Your task to perform on an android device: Open wifi settings Image 0: 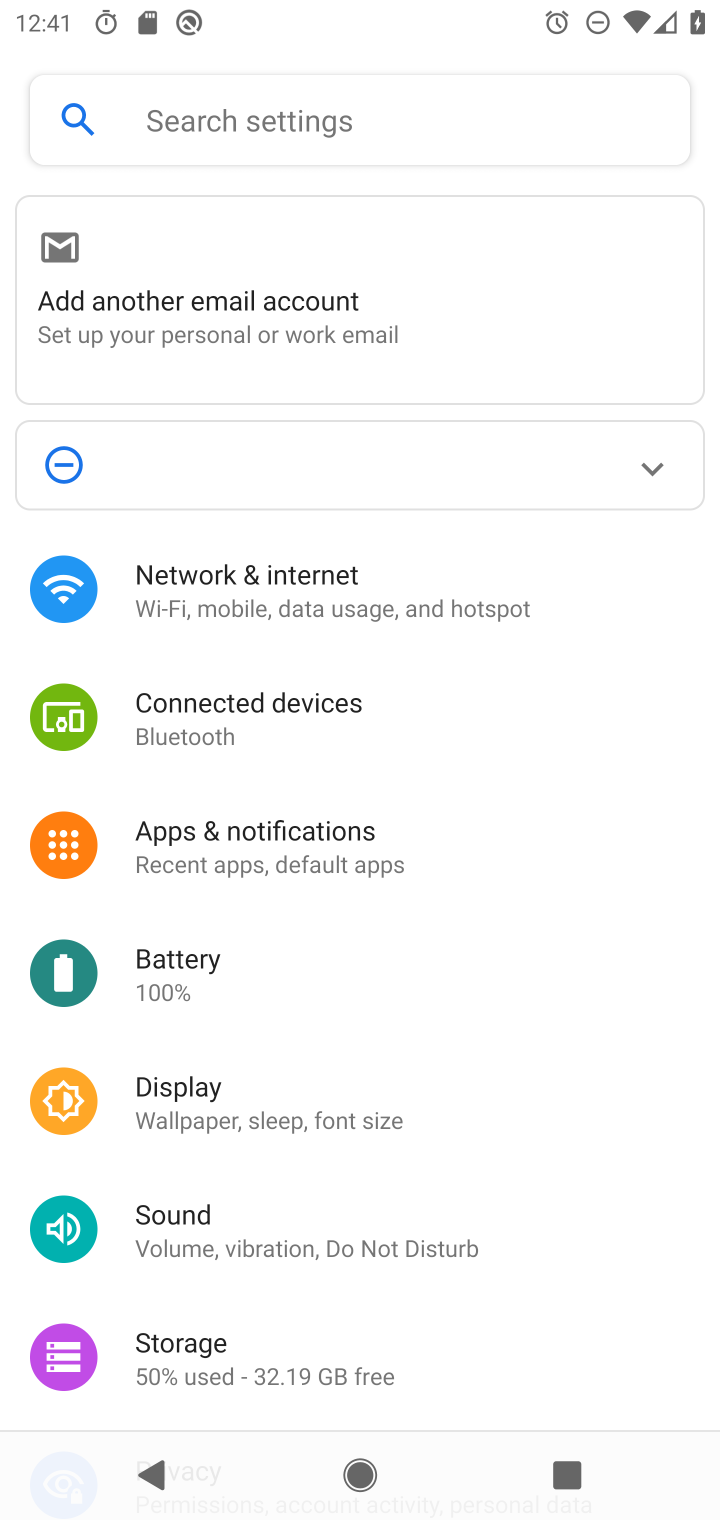
Step 0: press home button
Your task to perform on an android device: Open wifi settings Image 1: 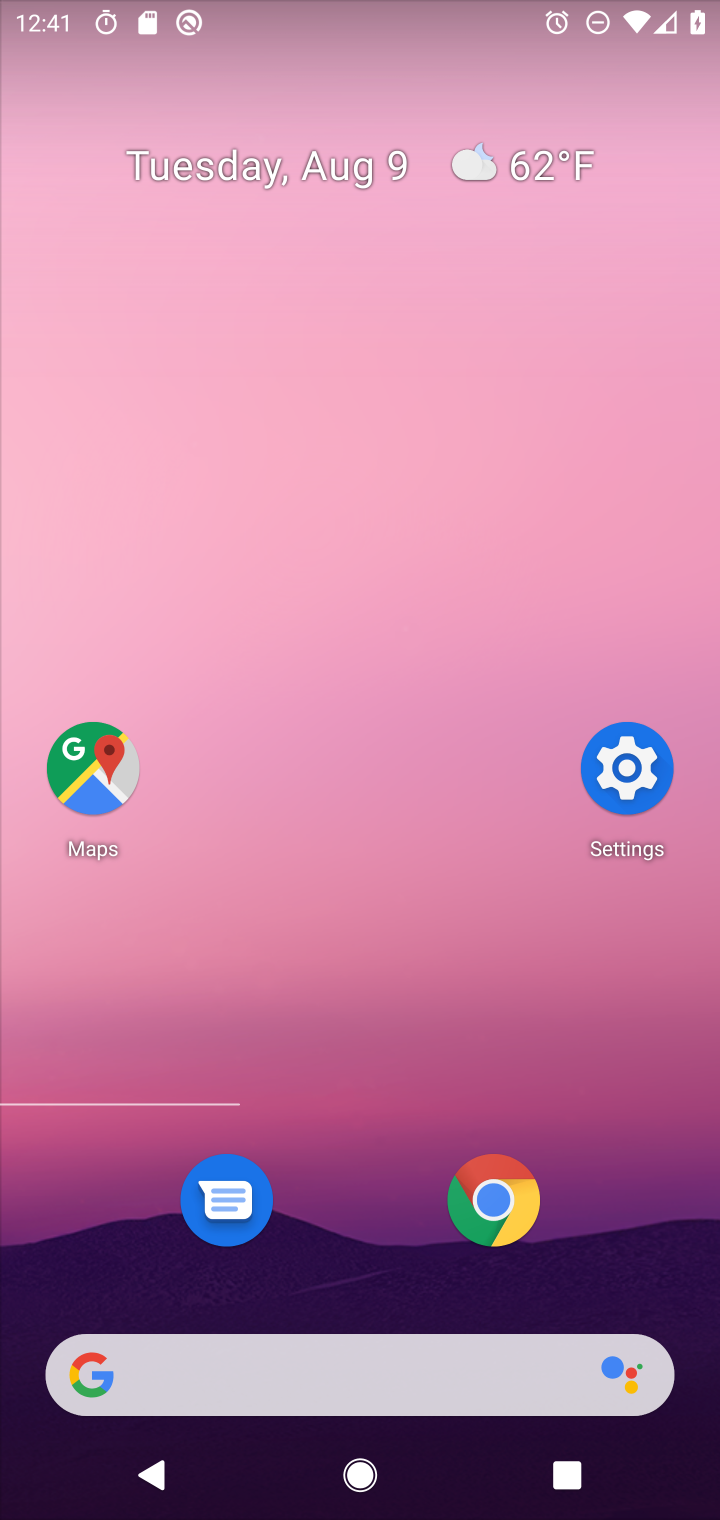
Step 1: click (639, 748)
Your task to perform on an android device: Open wifi settings Image 2: 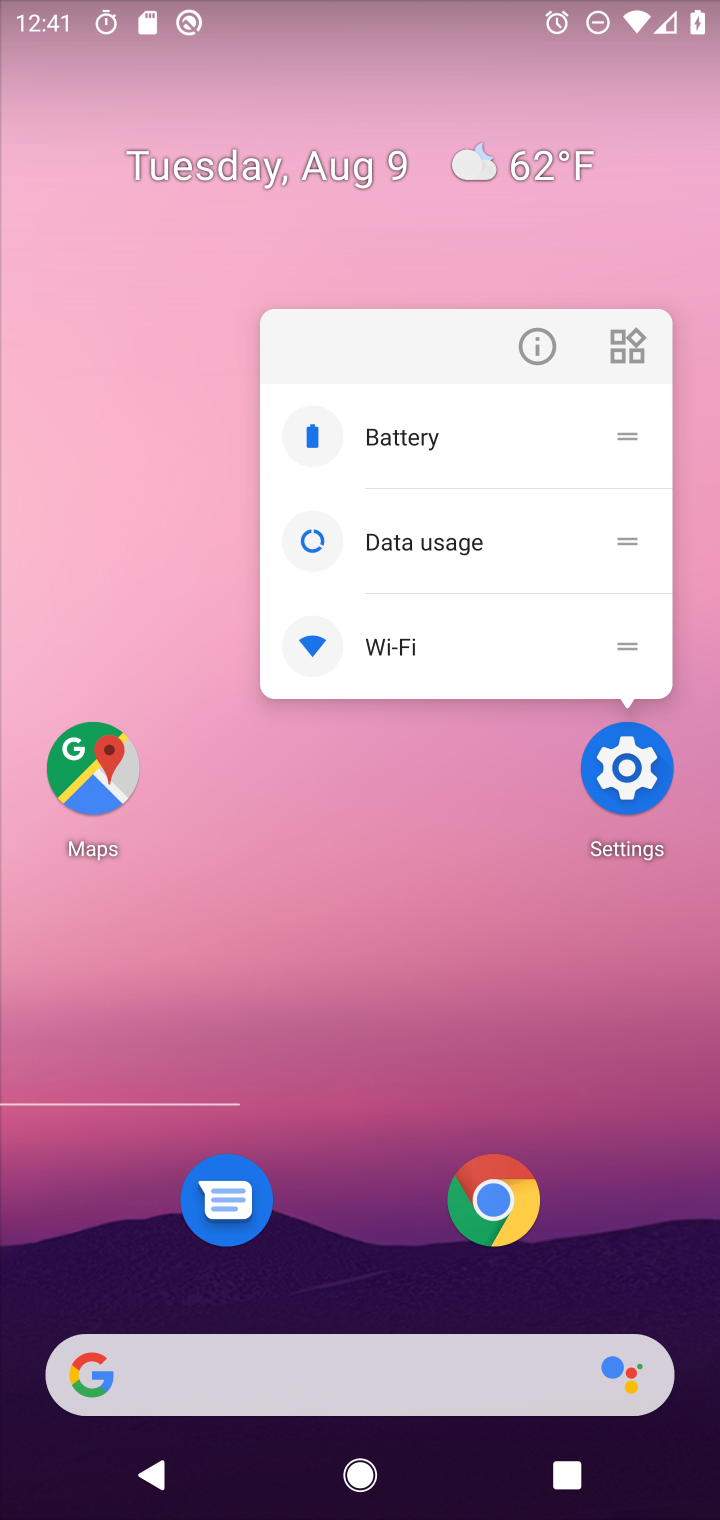
Step 2: click (639, 744)
Your task to perform on an android device: Open wifi settings Image 3: 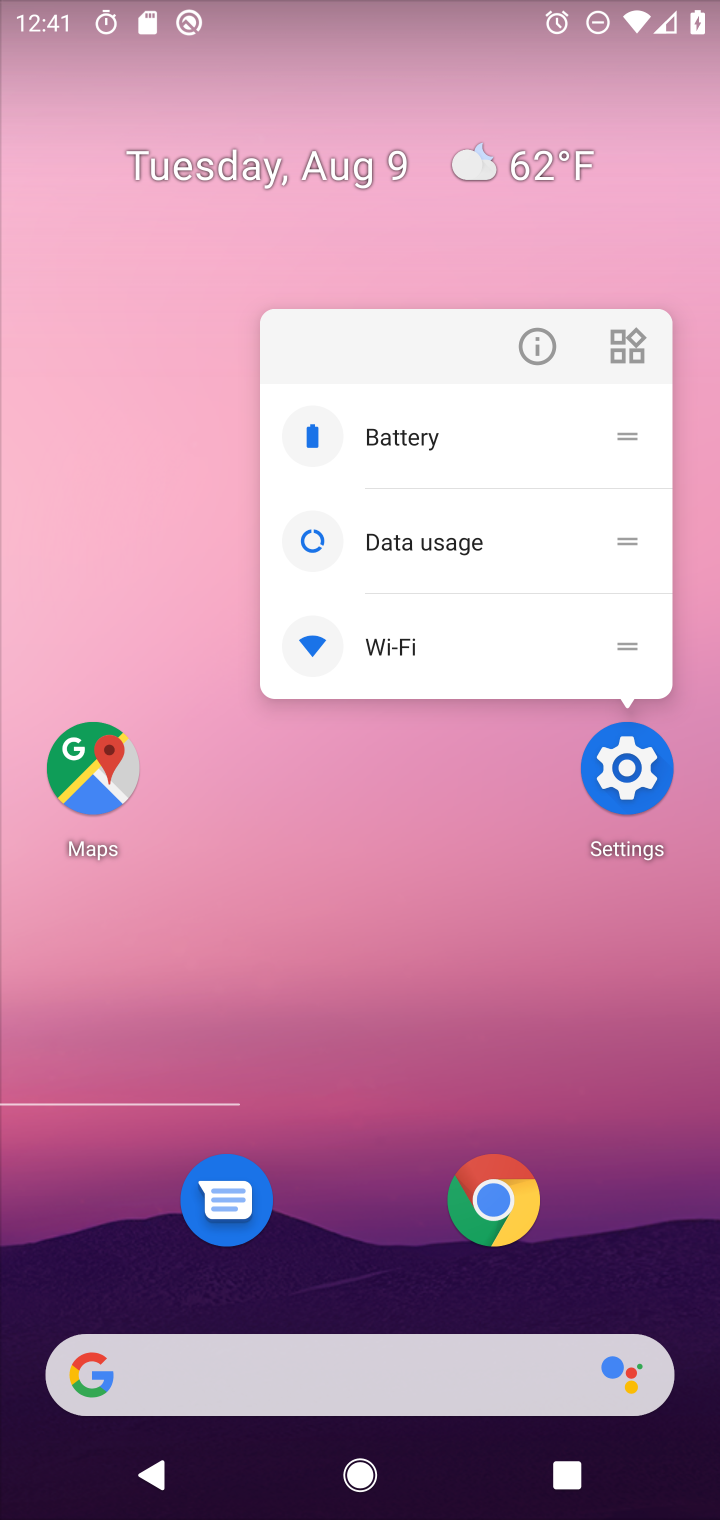
Step 3: click (626, 749)
Your task to perform on an android device: Open wifi settings Image 4: 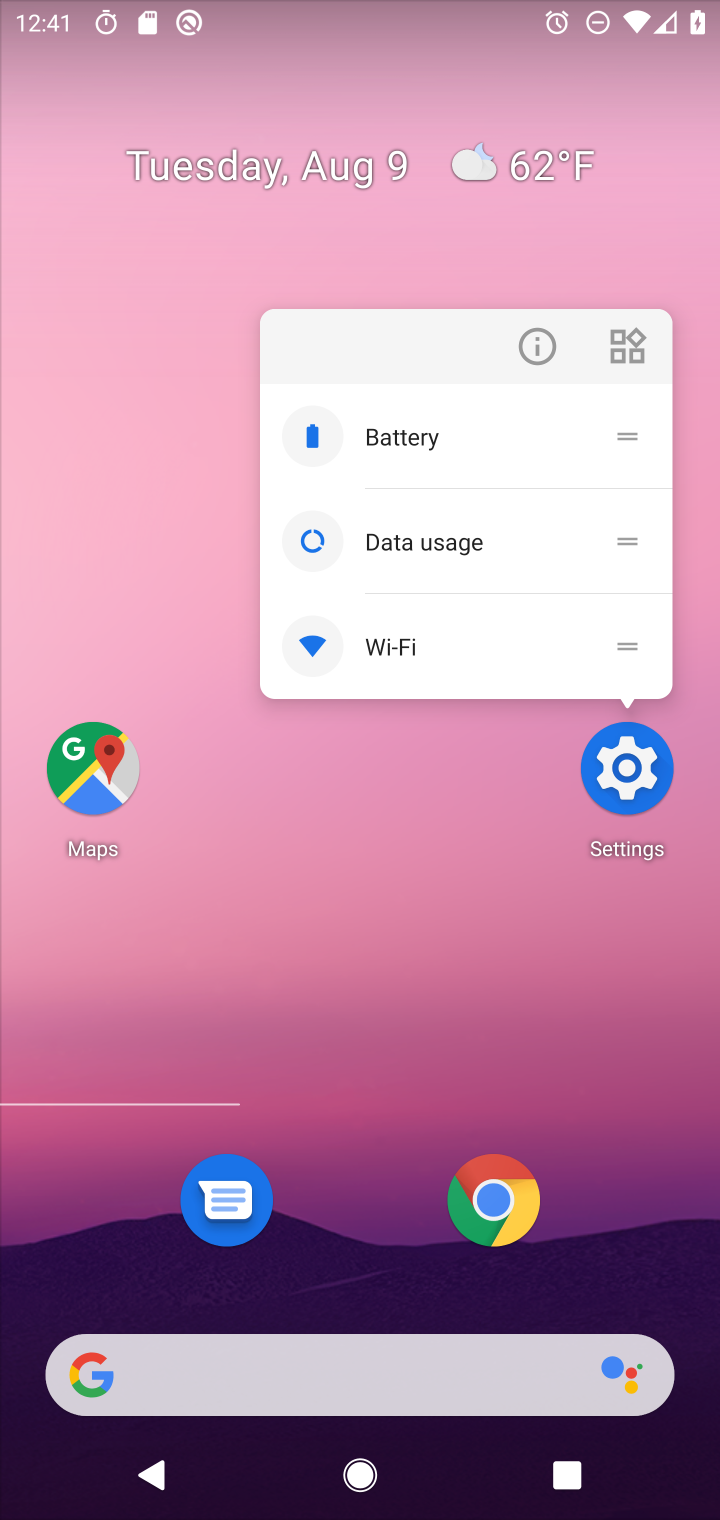
Step 4: click (605, 769)
Your task to perform on an android device: Open wifi settings Image 5: 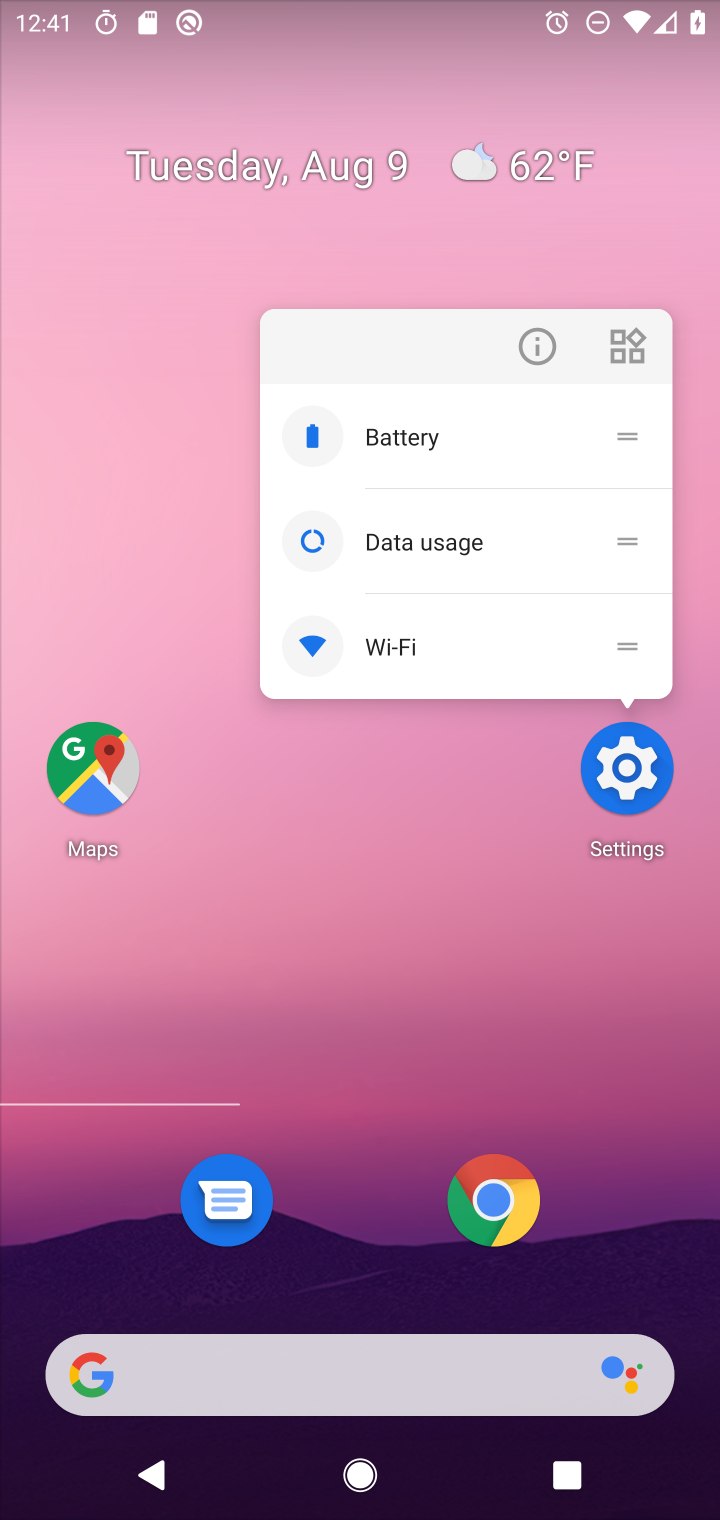
Step 5: click (635, 770)
Your task to perform on an android device: Open wifi settings Image 6: 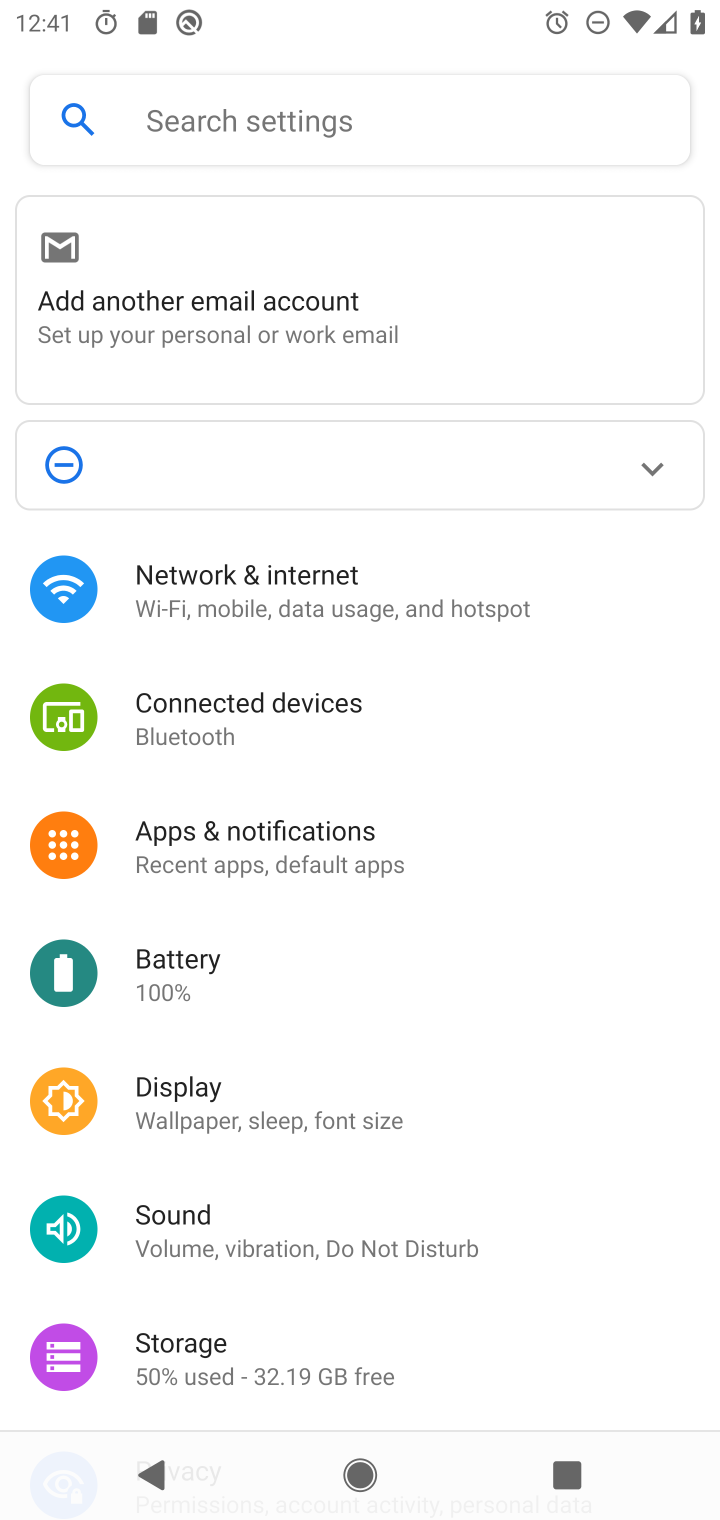
Step 6: click (244, 567)
Your task to perform on an android device: Open wifi settings Image 7: 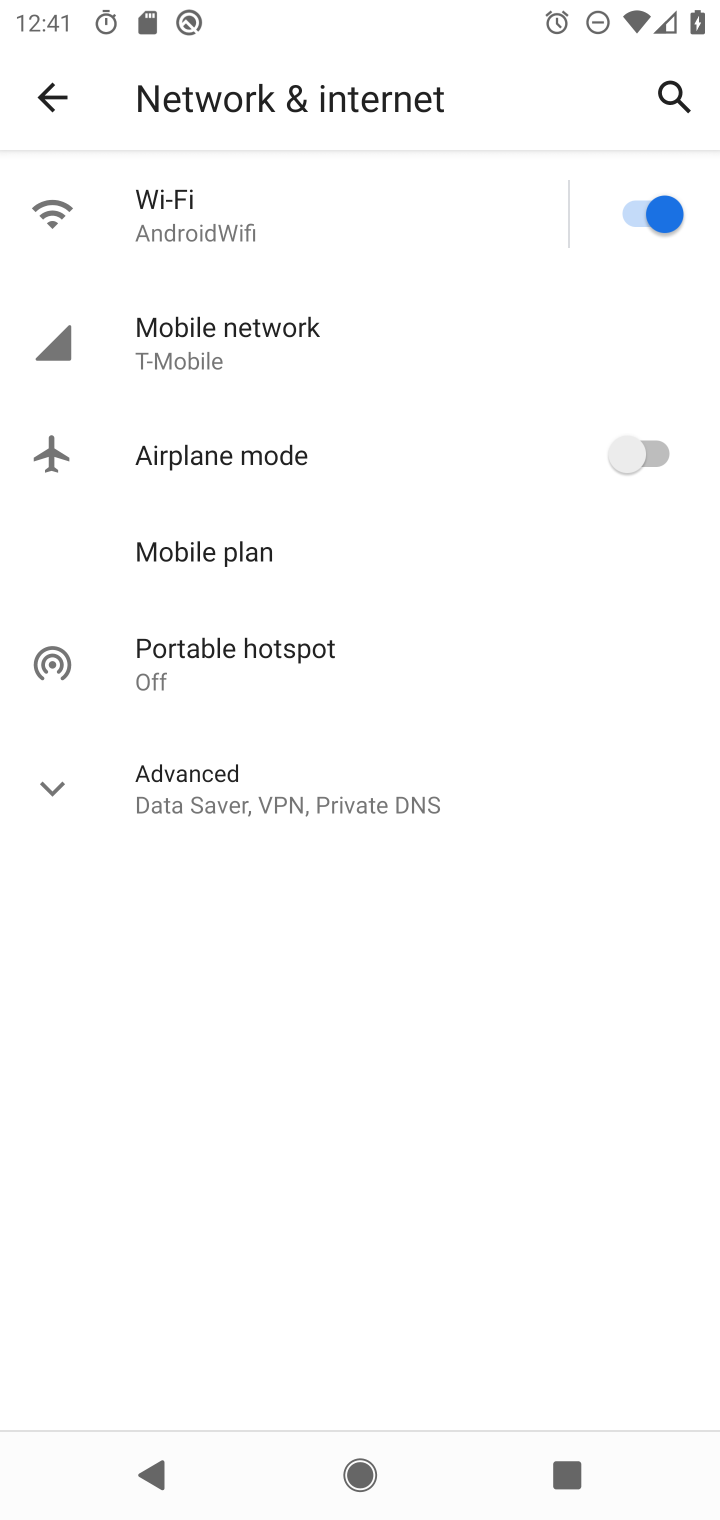
Step 7: click (192, 210)
Your task to perform on an android device: Open wifi settings Image 8: 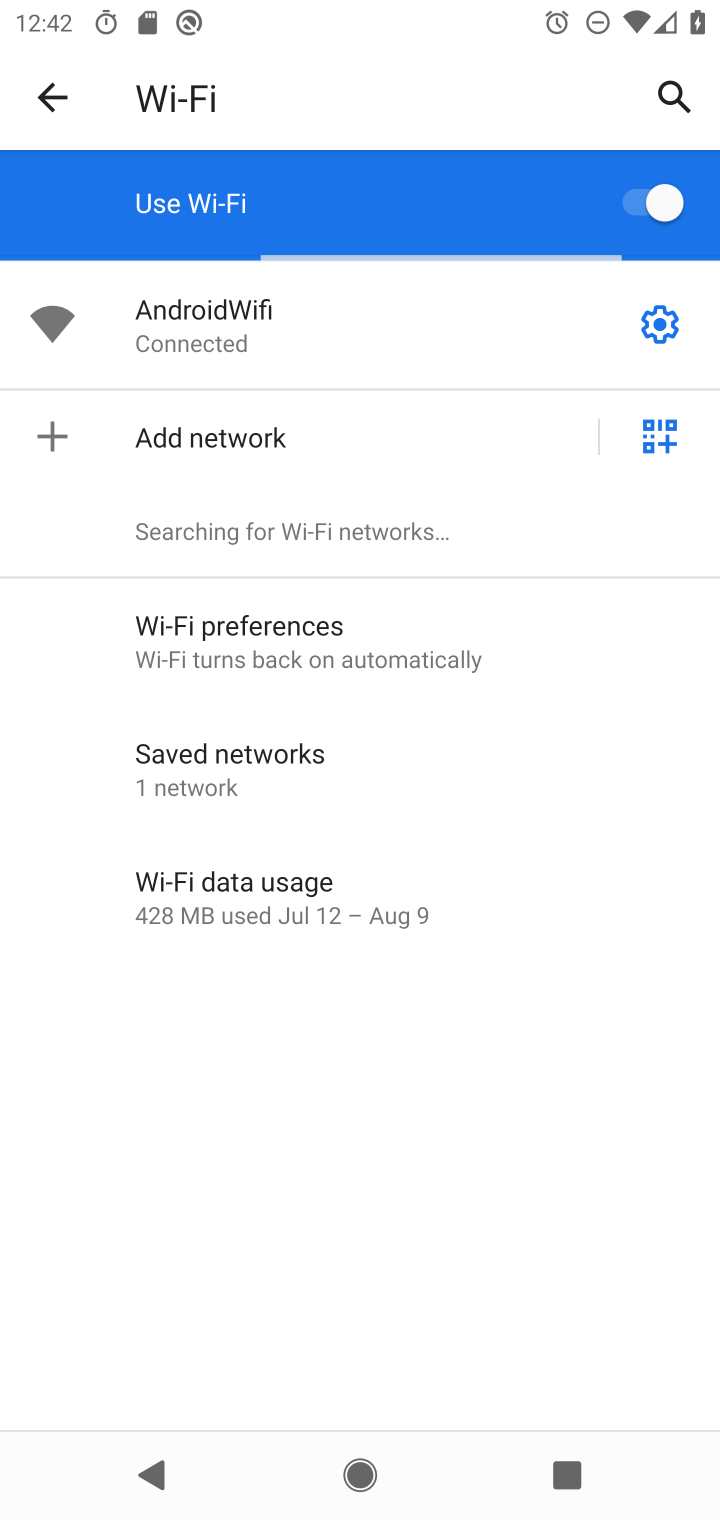
Step 8: task complete